Your task to perform on an android device: Open Youtube and go to the subscriptions tab Image 0: 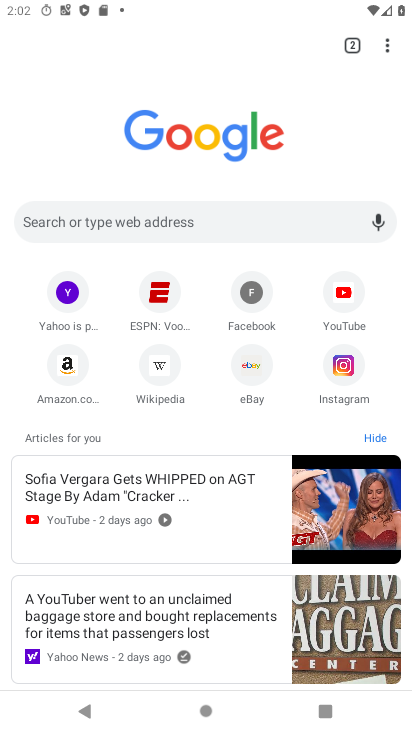
Step 0: press home button
Your task to perform on an android device: Open Youtube and go to the subscriptions tab Image 1: 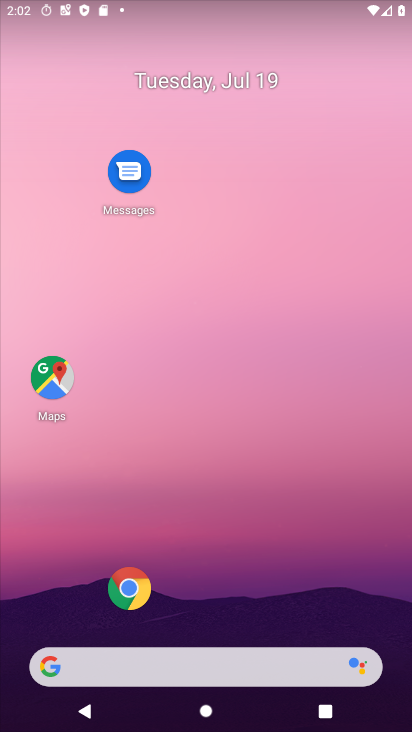
Step 1: drag from (63, 612) to (255, 279)
Your task to perform on an android device: Open Youtube and go to the subscriptions tab Image 2: 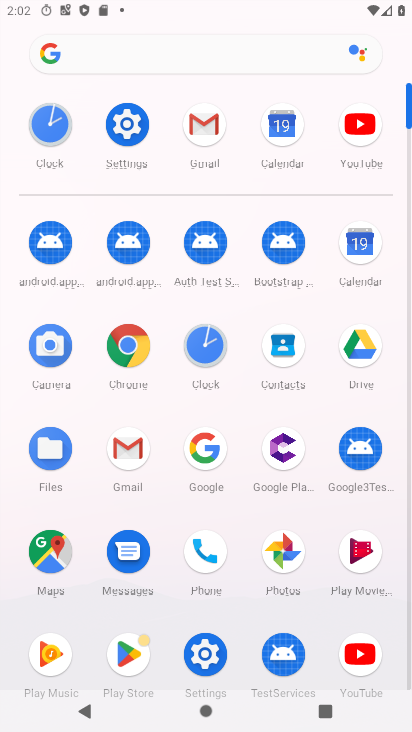
Step 2: click (372, 640)
Your task to perform on an android device: Open Youtube and go to the subscriptions tab Image 3: 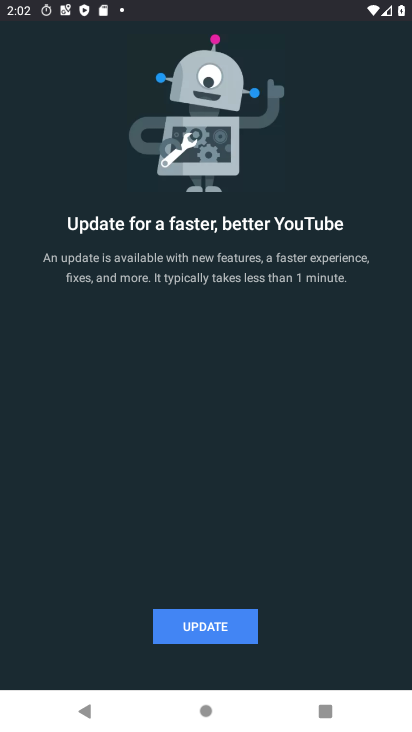
Step 3: click (208, 627)
Your task to perform on an android device: Open Youtube and go to the subscriptions tab Image 4: 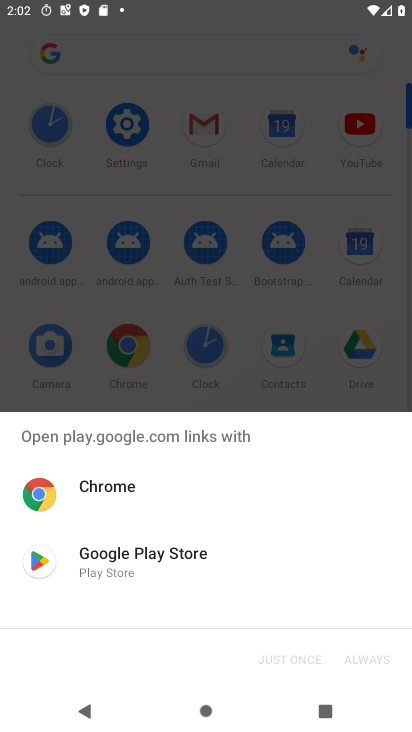
Step 4: click (124, 563)
Your task to perform on an android device: Open Youtube and go to the subscriptions tab Image 5: 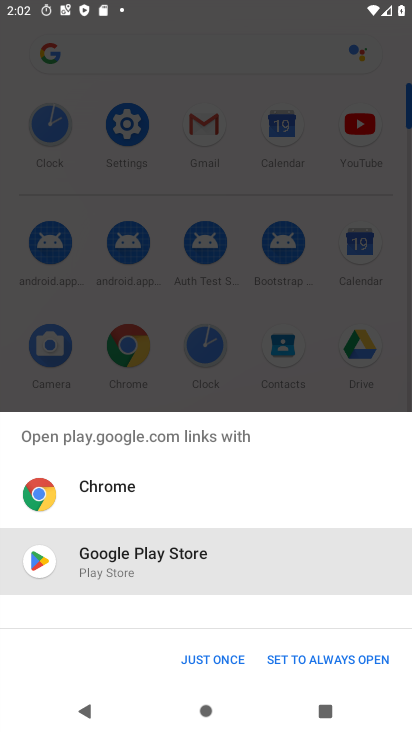
Step 5: click (251, 657)
Your task to perform on an android device: Open Youtube and go to the subscriptions tab Image 6: 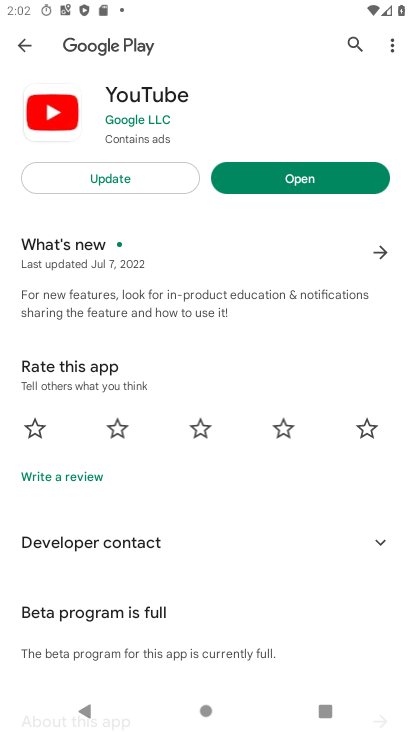
Step 6: click (304, 184)
Your task to perform on an android device: Open Youtube and go to the subscriptions tab Image 7: 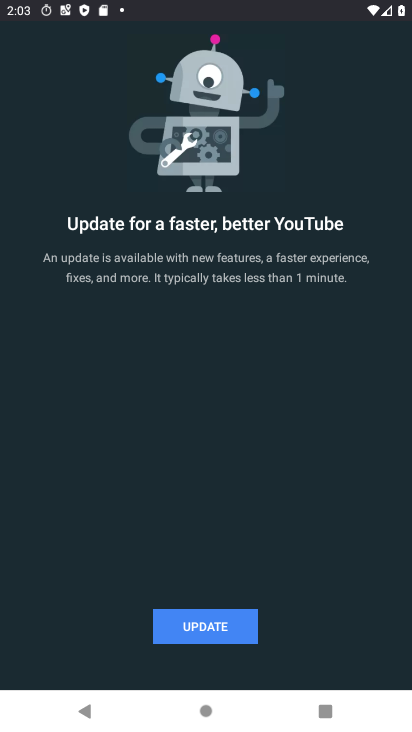
Step 7: task complete